Your task to perform on an android device: Search for "razer blade" on ebay.com, select the first entry, add it to the cart, then select checkout. Image 0: 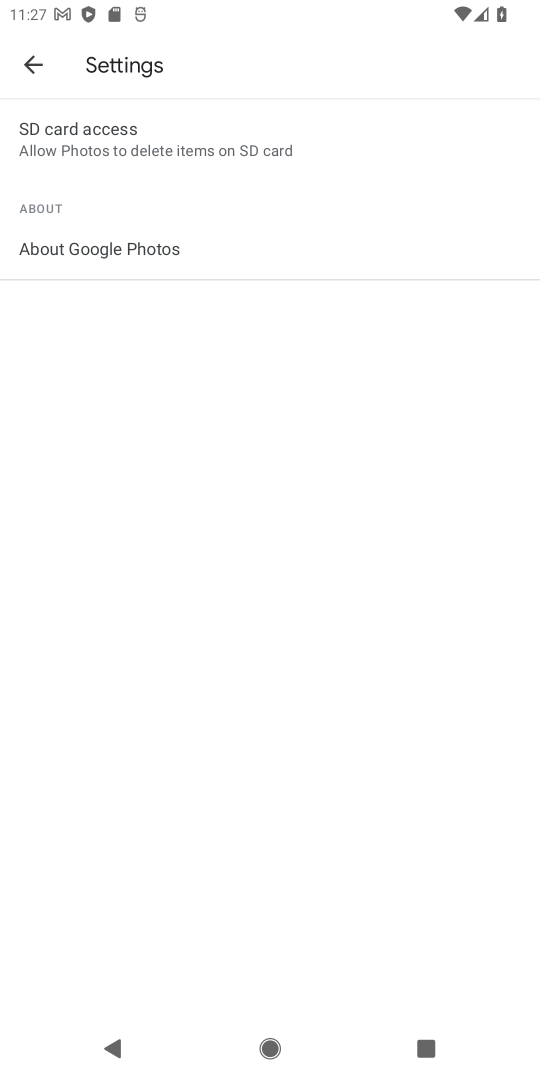
Step 0: press home button
Your task to perform on an android device: Search for "razer blade" on ebay.com, select the first entry, add it to the cart, then select checkout. Image 1: 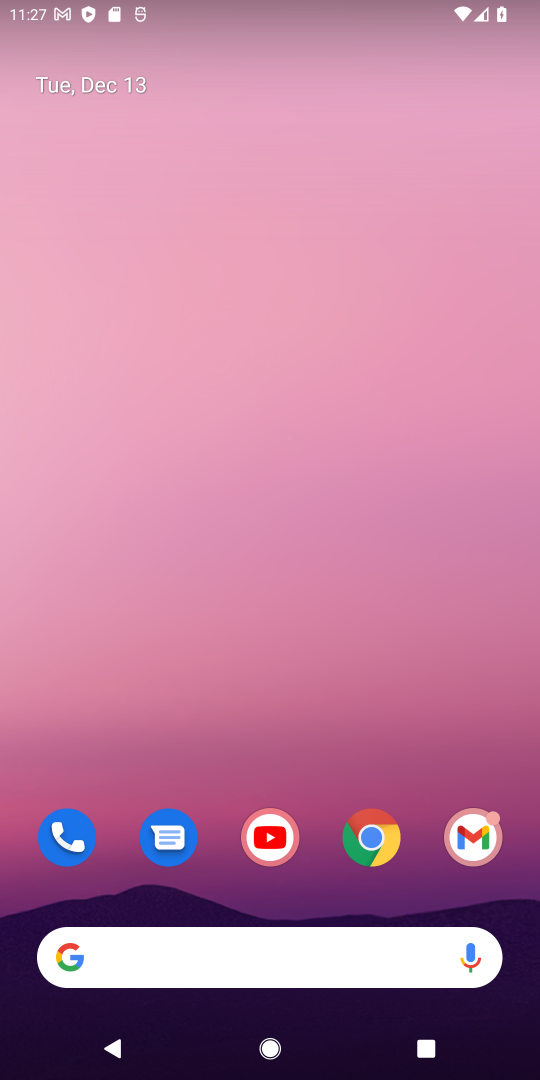
Step 1: click (346, 946)
Your task to perform on an android device: Search for "razer blade" on ebay.com, select the first entry, add it to the cart, then select checkout. Image 2: 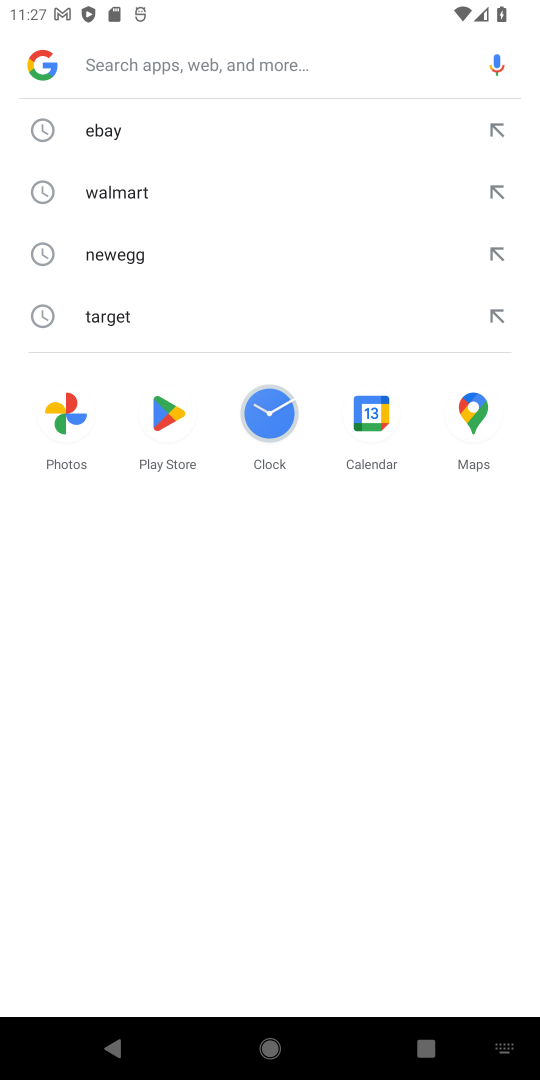
Step 2: click (113, 118)
Your task to perform on an android device: Search for "razer blade" on ebay.com, select the first entry, add it to the cart, then select checkout. Image 3: 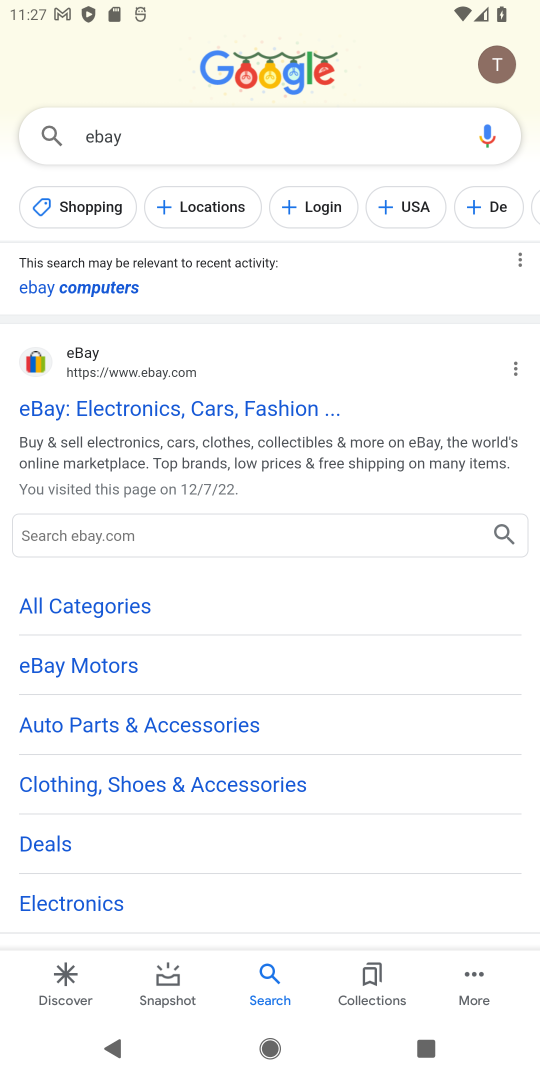
Step 3: click (122, 404)
Your task to perform on an android device: Search for "razer blade" on ebay.com, select the first entry, add it to the cart, then select checkout. Image 4: 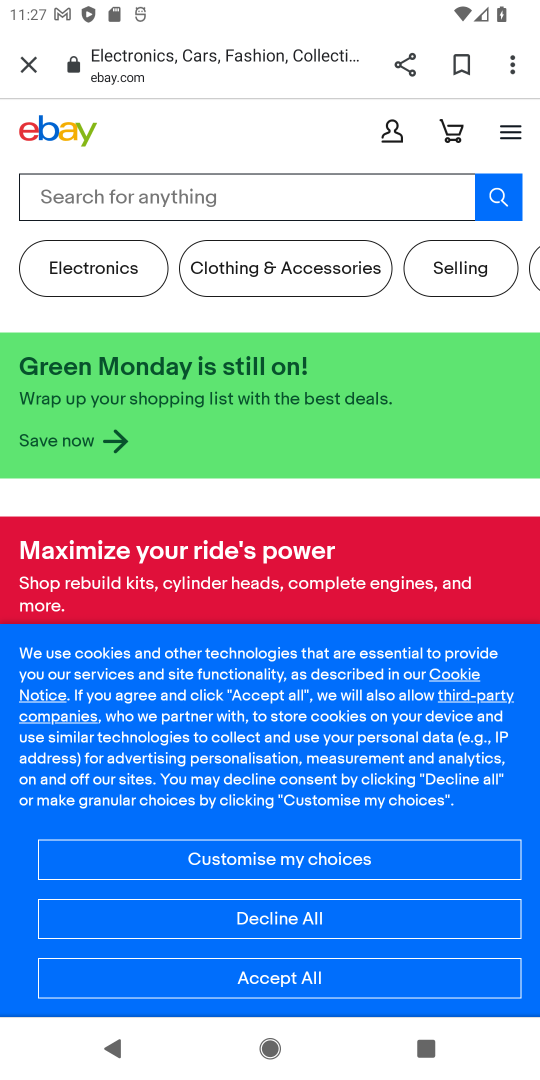
Step 4: click (158, 198)
Your task to perform on an android device: Search for "razer blade" on ebay.com, select the first entry, add it to the cart, then select checkout. Image 5: 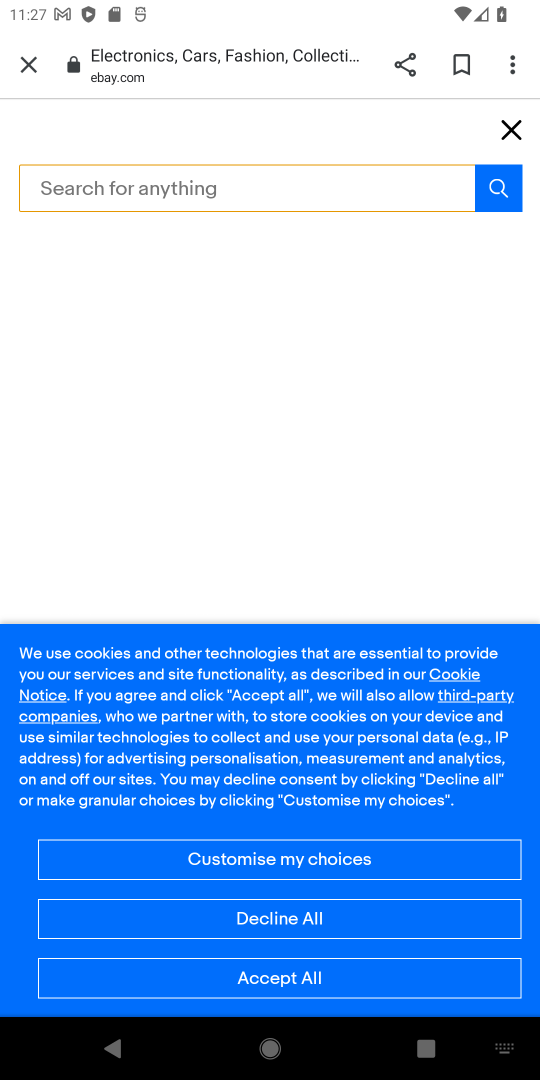
Step 5: type "razer blade"
Your task to perform on an android device: Search for "razer blade" on ebay.com, select the first entry, add it to the cart, then select checkout. Image 6: 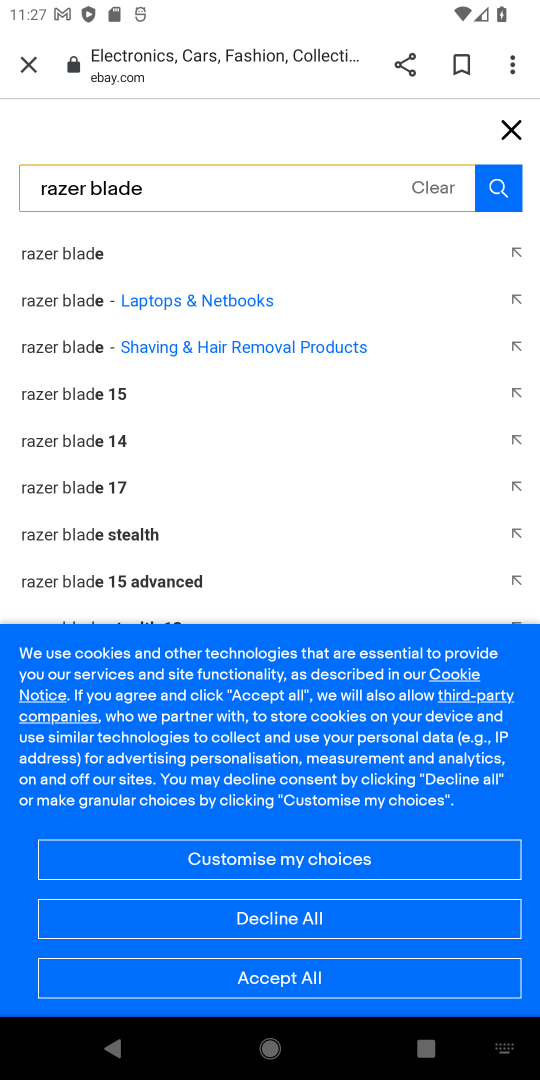
Step 6: click (491, 200)
Your task to perform on an android device: Search for "razer blade" on ebay.com, select the first entry, add it to the cart, then select checkout. Image 7: 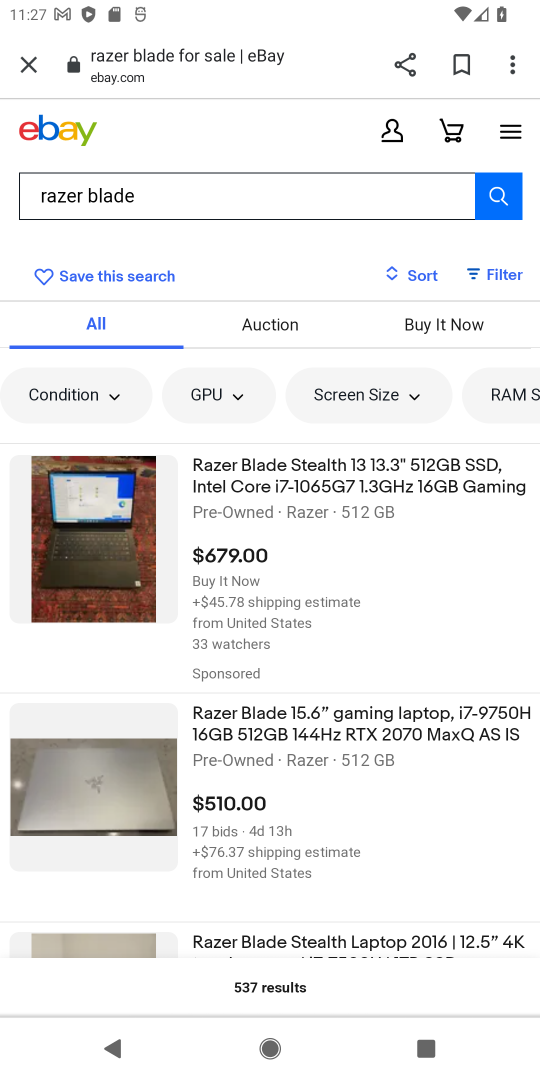
Step 7: click (384, 497)
Your task to perform on an android device: Search for "razer blade" on ebay.com, select the first entry, add it to the cart, then select checkout. Image 8: 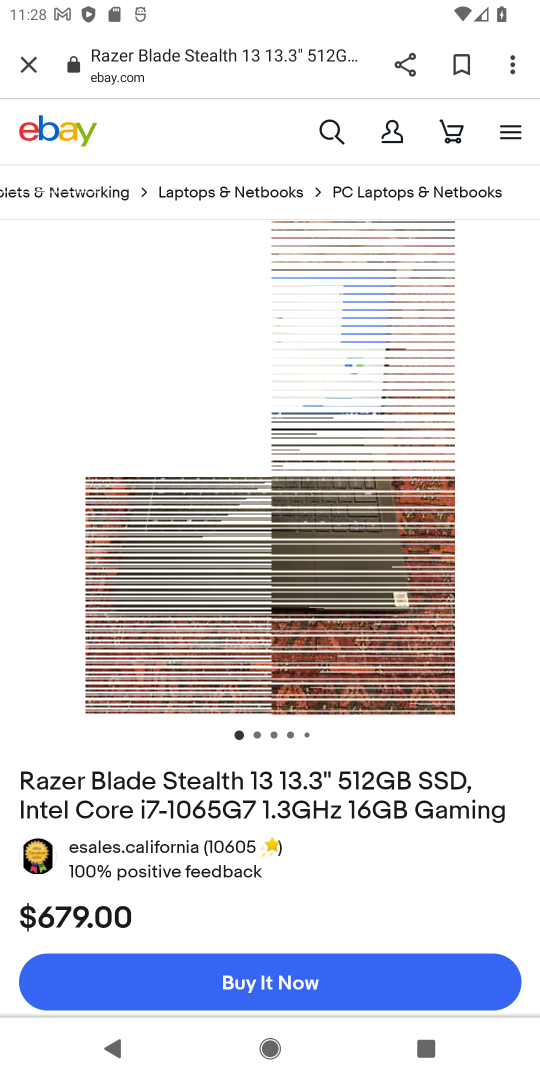
Step 8: drag from (334, 927) to (342, 703)
Your task to perform on an android device: Search for "razer blade" on ebay.com, select the first entry, add it to the cart, then select checkout. Image 9: 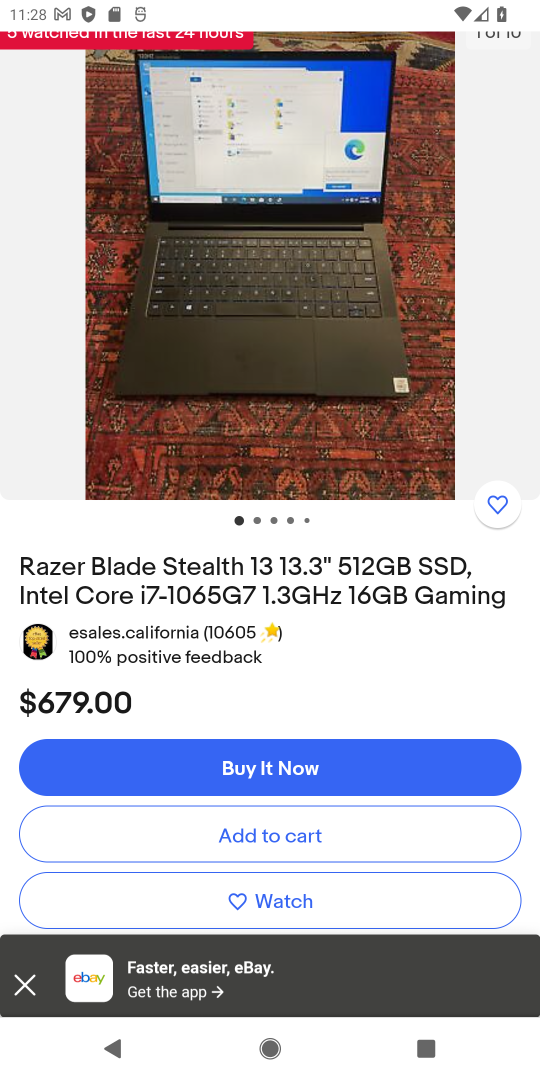
Step 9: click (377, 836)
Your task to perform on an android device: Search for "razer blade" on ebay.com, select the first entry, add it to the cart, then select checkout. Image 10: 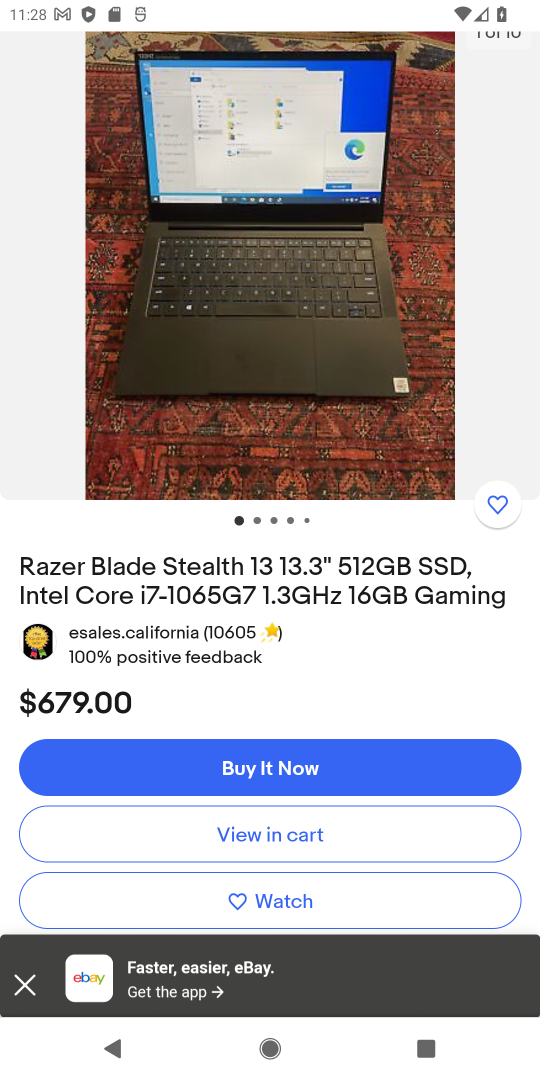
Step 10: task complete